Your task to perform on an android device: open a new tab in the chrome app Image 0: 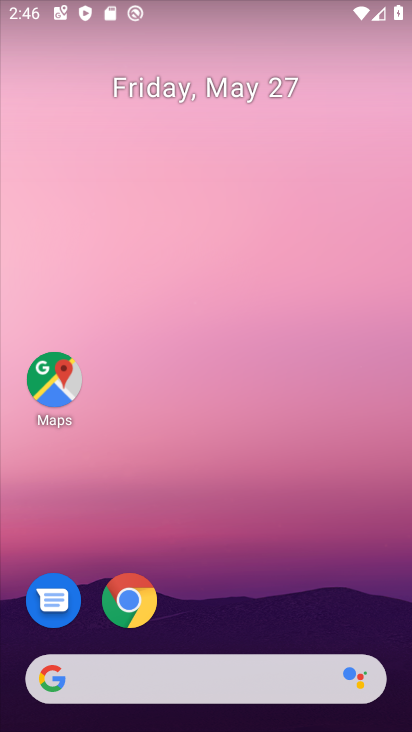
Step 0: click (136, 606)
Your task to perform on an android device: open a new tab in the chrome app Image 1: 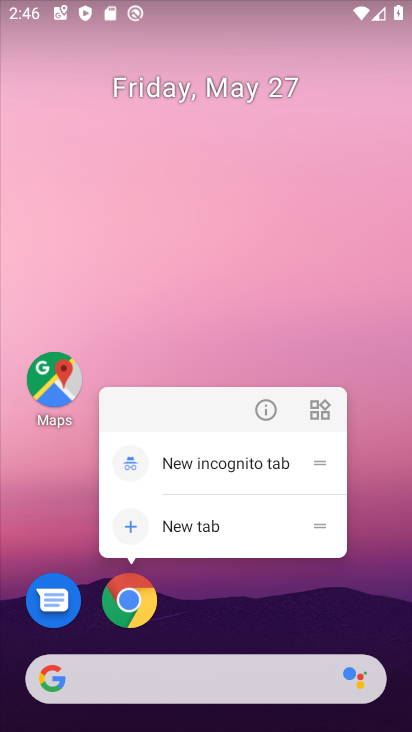
Step 1: click (201, 522)
Your task to perform on an android device: open a new tab in the chrome app Image 2: 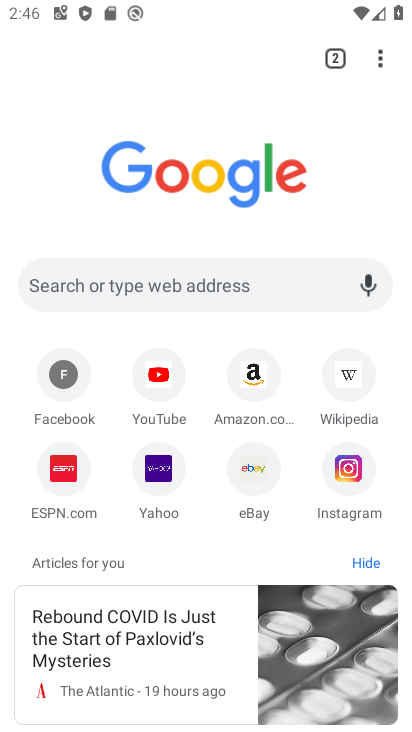
Step 2: task complete